Your task to perform on an android device: turn off javascript in the chrome app Image 0: 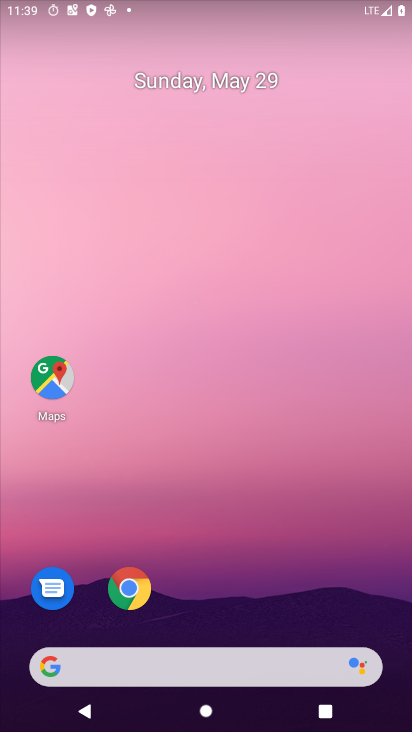
Step 0: drag from (247, 480) to (294, 152)
Your task to perform on an android device: turn off javascript in the chrome app Image 1: 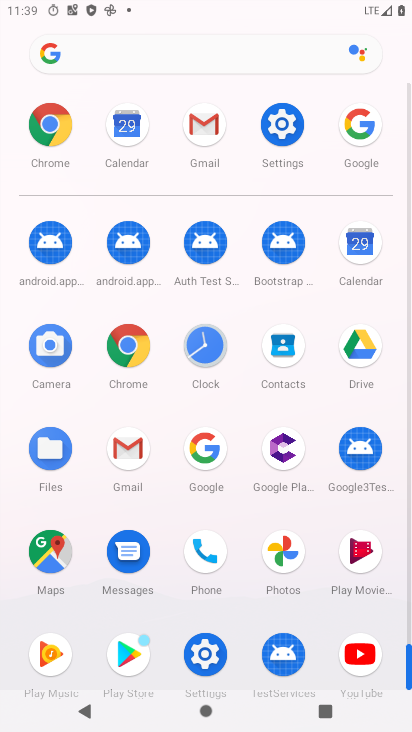
Step 1: click (121, 364)
Your task to perform on an android device: turn off javascript in the chrome app Image 2: 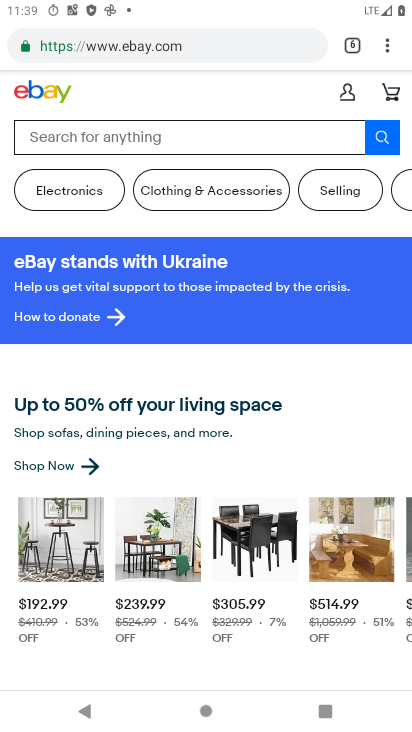
Step 2: click (388, 51)
Your task to perform on an android device: turn off javascript in the chrome app Image 3: 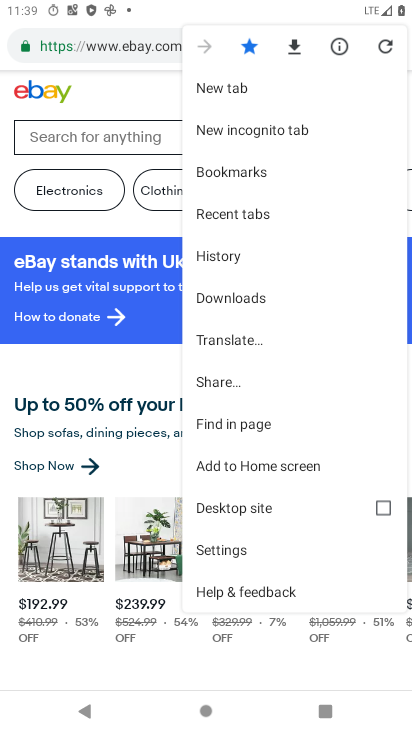
Step 3: click (277, 556)
Your task to perform on an android device: turn off javascript in the chrome app Image 4: 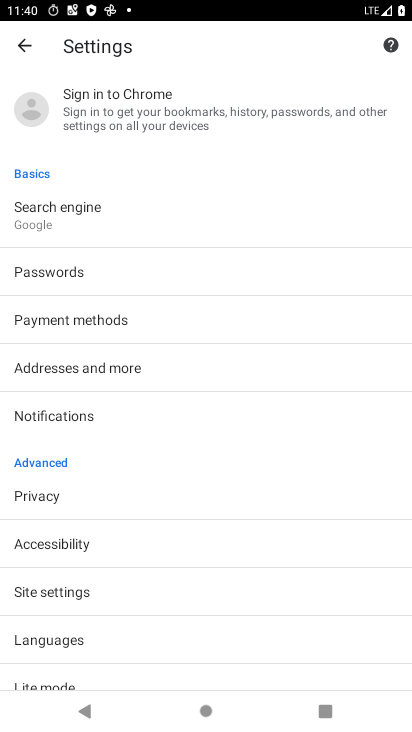
Step 4: click (93, 600)
Your task to perform on an android device: turn off javascript in the chrome app Image 5: 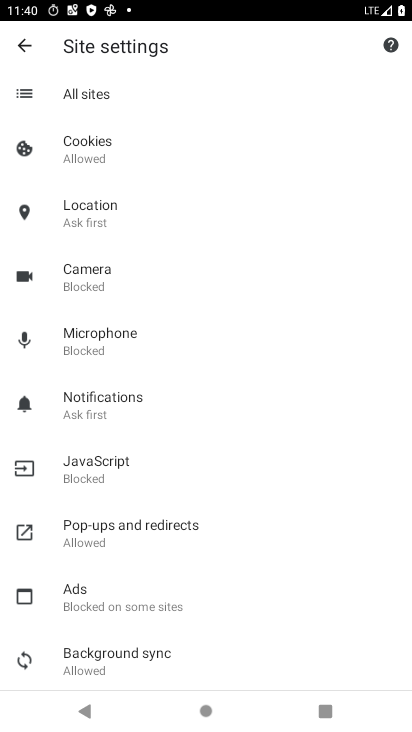
Step 5: click (153, 481)
Your task to perform on an android device: turn off javascript in the chrome app Image 6: 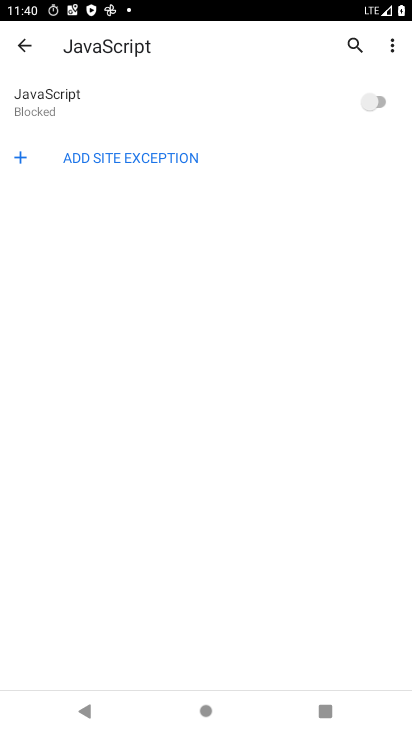
Step 6: task complete